Your task to perform on an android device: Open Amazon Image 0: 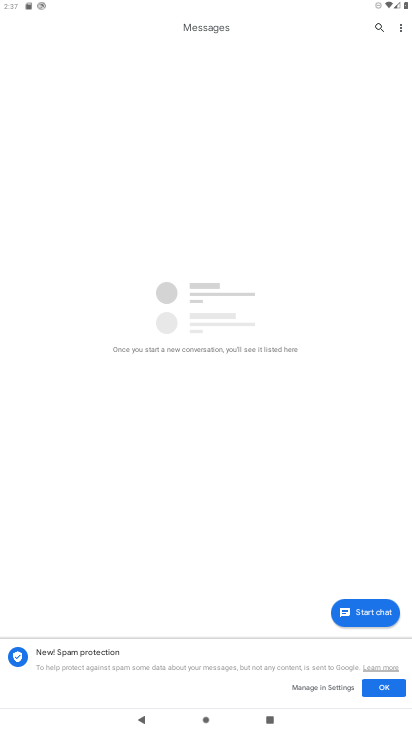
Step 0: press home button
Your task to perform on an android device: Open Amazon Image 1: 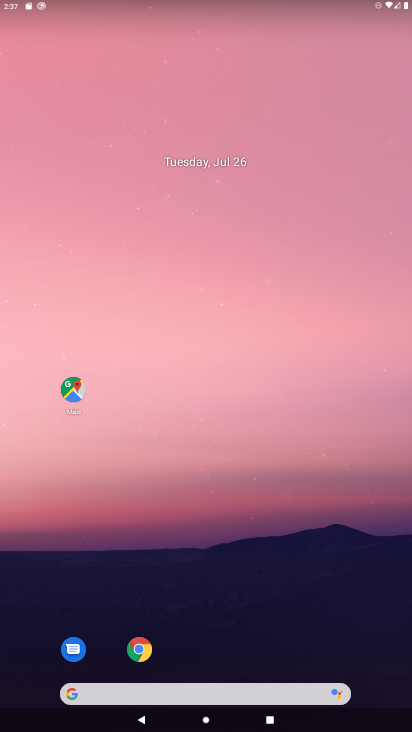
Step 1: click (147, 649)
Your task to perform on an android device: Open Amazon Image 2: 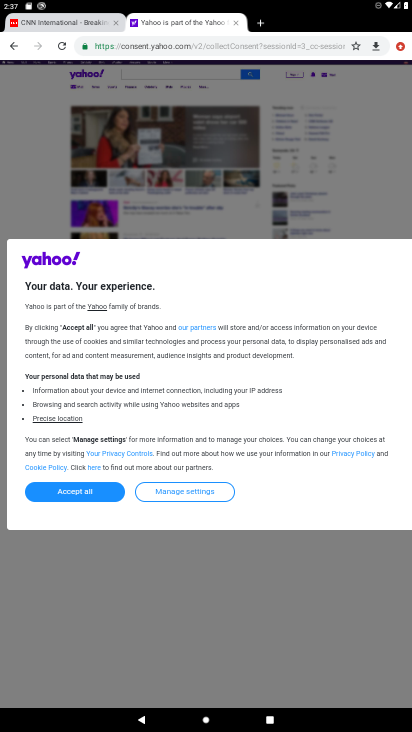
Step 2: click (265, 28)
Your task to perform on an android device: Open Amazon Image 3: 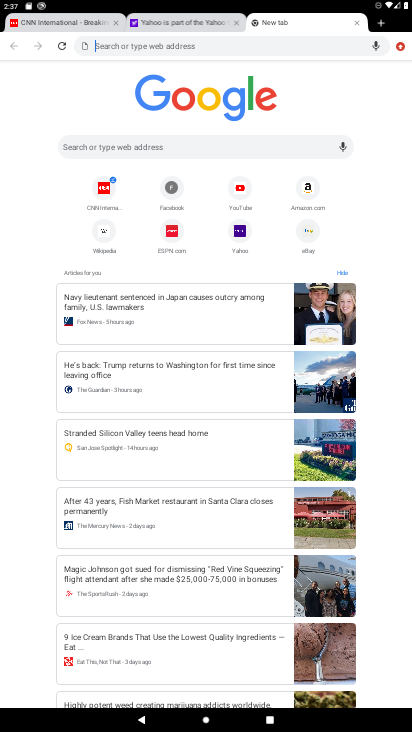
Step 3: click (312, 182)
Your task to perform on an android device: Open Amazon Image 4: 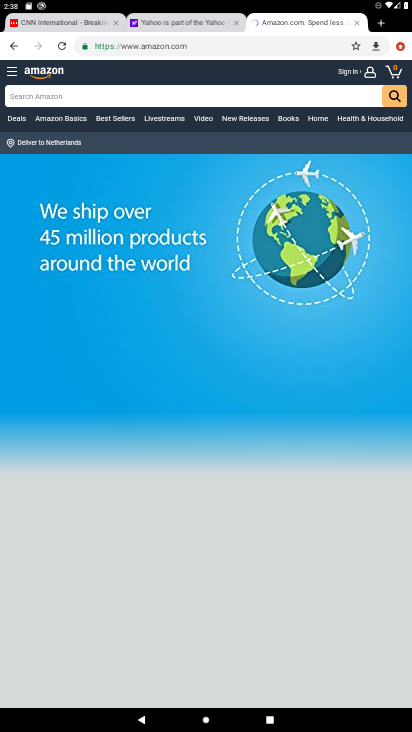
Step 4: task complete